Your task to perform on an android device: see tabs open on other devices in the chrome app Image 0: 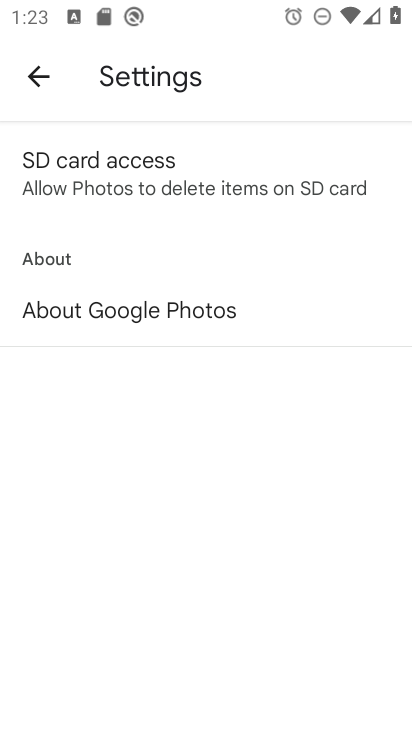
Step 0: press home button
Your task to perform on an android device: see tabs open on other devices in the chrome app Image 1: 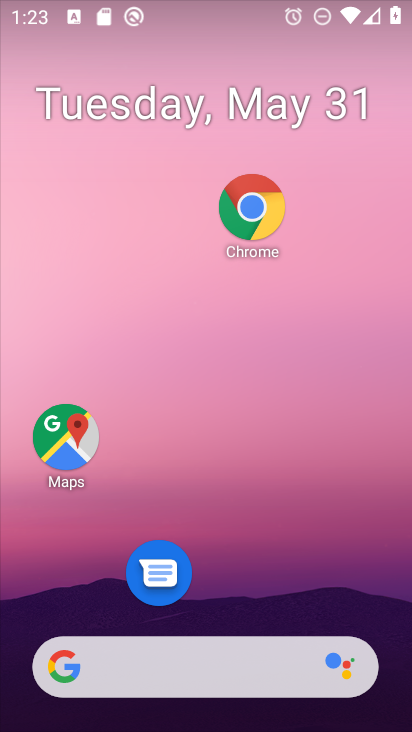
Step 1: drag from (283, 614) to (283, 29)
Your task to perform on an android device: see tabs open on other devices in the chrome app Image 2: 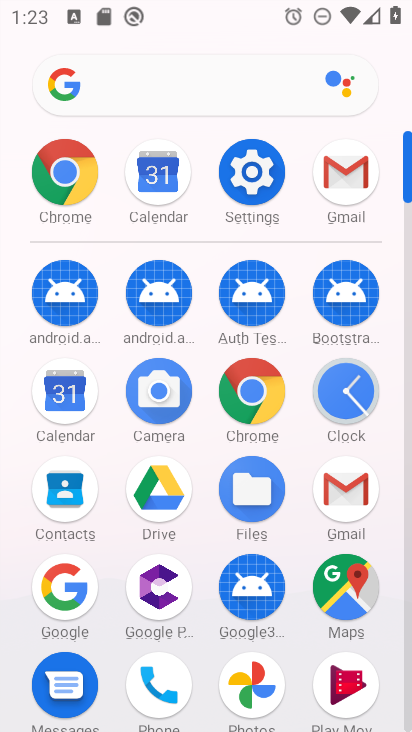
Step 2: click (267, 417)
Your task to perform on an android device: see tabs open on other devices in the chrome app Image 3: 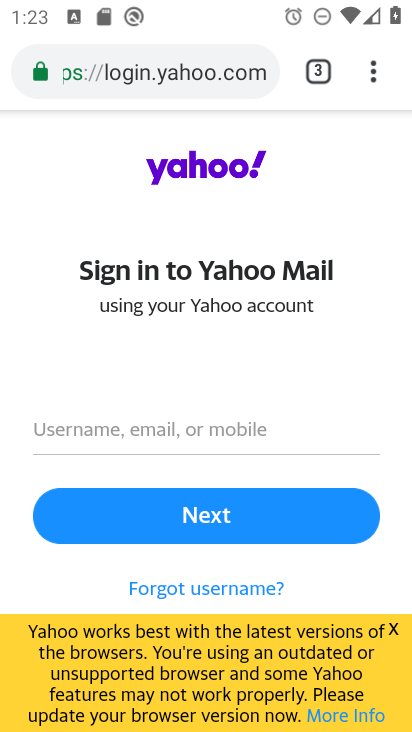
Step 3: task complete